Your task to perform on an android device: open device folders in google photos Image 0: 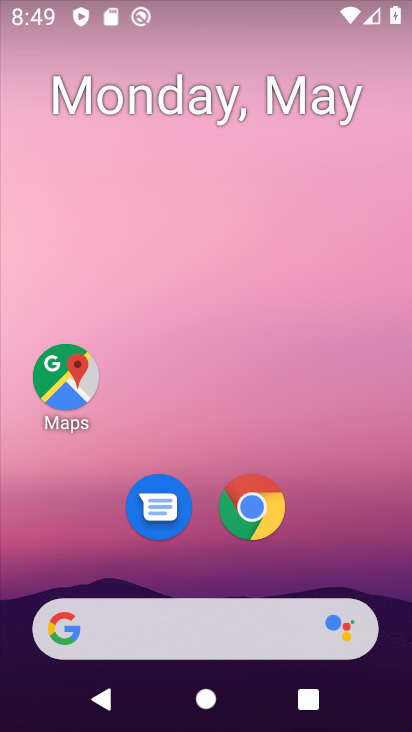
Step 0: drag from (213, 574) to (258, 5)
Your task to perform on an android device: open device folders in google photos Image 1: 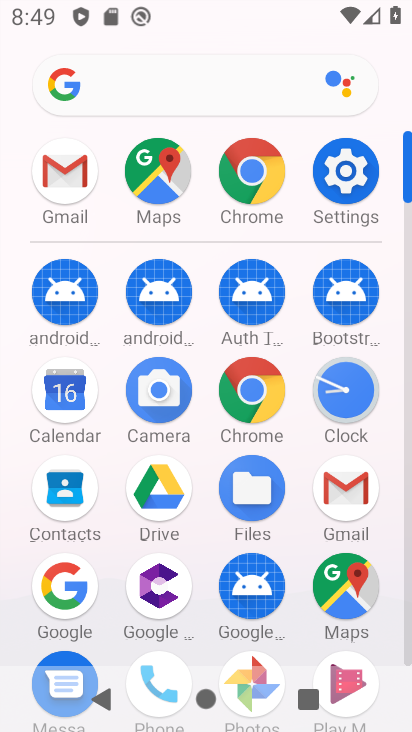
Step 1: drag from (195, 596) to (201, 294)
Your task to perform on an android device: open device folders in google photos Image 2: 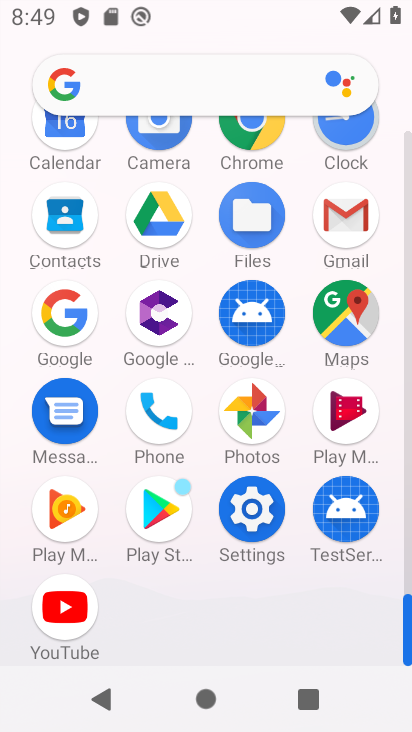
Step 2: click (255, 392)
Your task to perform on an android device: open device folders in google photos Image 3: 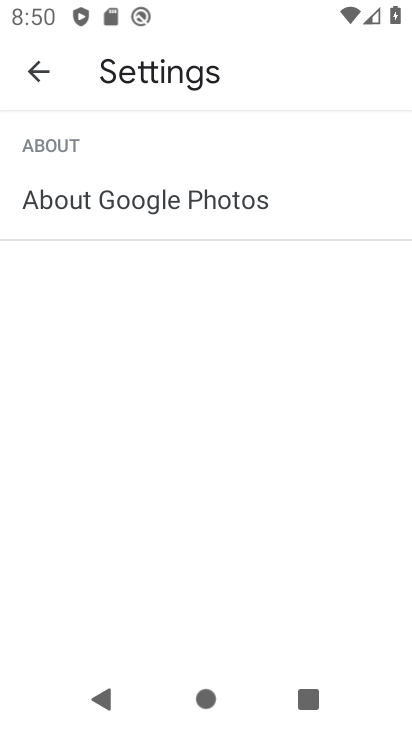
Step 3: click (37, 83)
Your task to perform on an android device: open device folders in google photos Image 4: 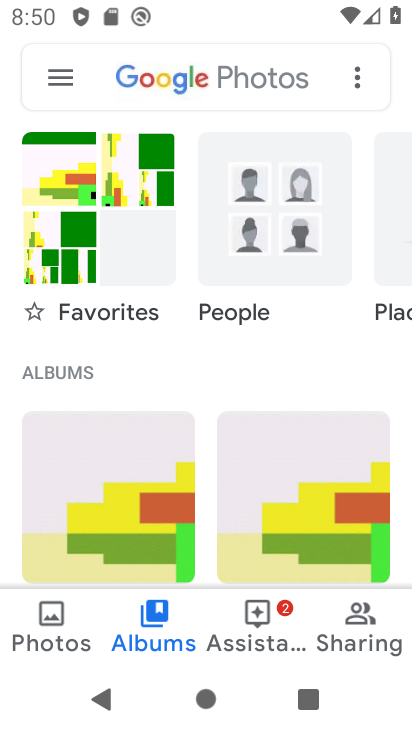
Step 4: click (63, 619)
Your task to perform on an android device: open device folders in google photos Image 5: 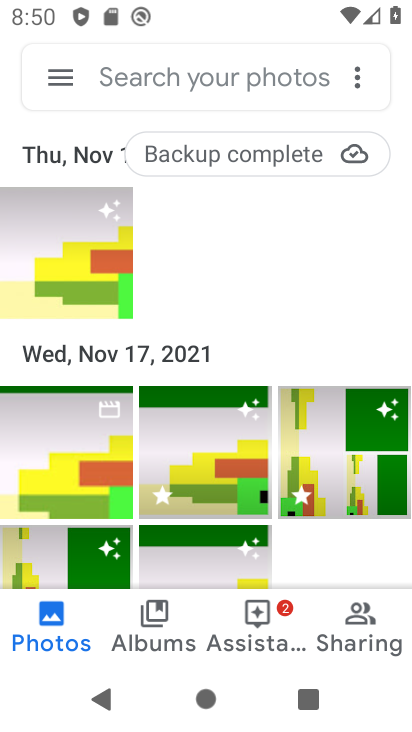
Step 5: click (46, 69)
Your task to perform on an android device: open device folders in google photos Image 6: 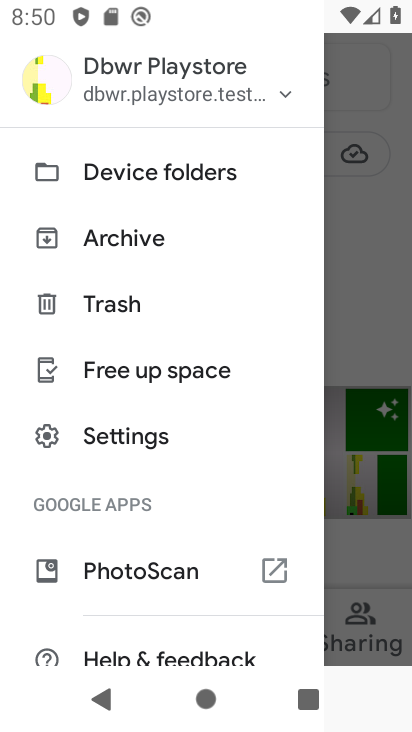
Step 6: click (190, 179)
Your task to perform on an android device: open device folders in google photos Image 7: 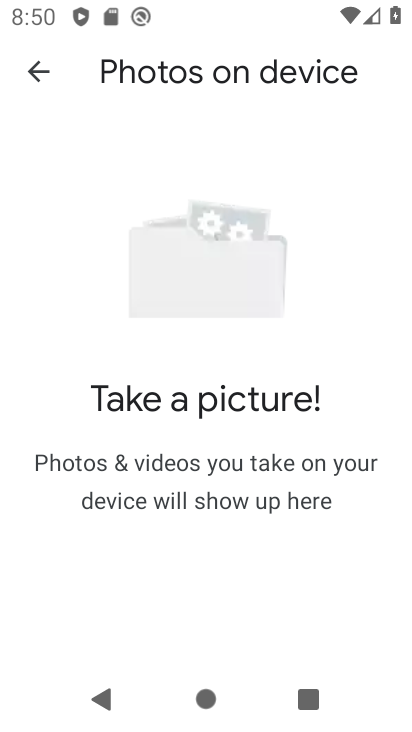
Step 7: task complete